Your task to perform on an android device: When is my next meeting? Image 0: 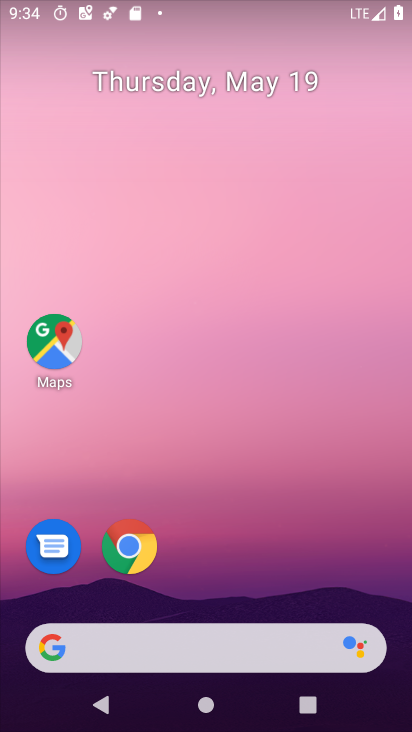
Step 0: drag from (281, 640) to (220, 0)
Your task to perform on an android device: When is my next meeting? Image 1: 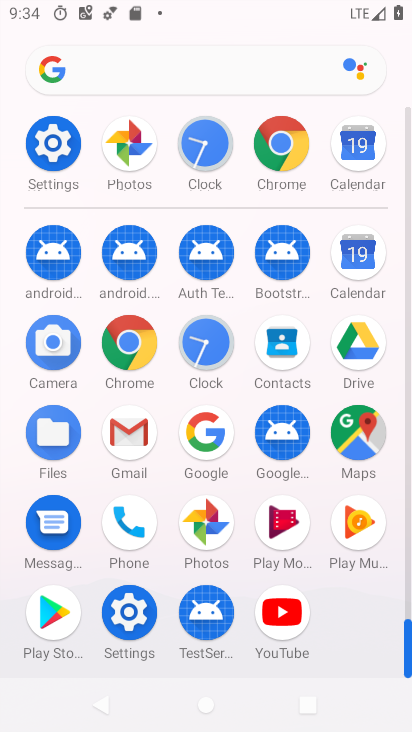
Step 1: drag from (261, 693) to (267, 75)
Your task to perform on an android device: When is my next meeting? Image 2: 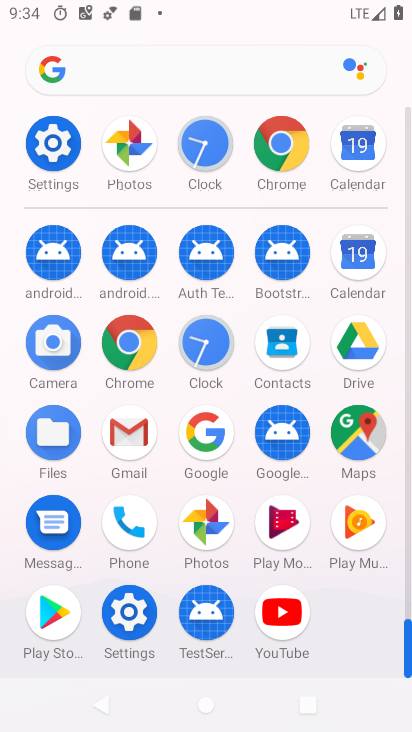
Step 2: click (343, 264)
Your task to perform on an android device: When is my next meeting? Image 3: 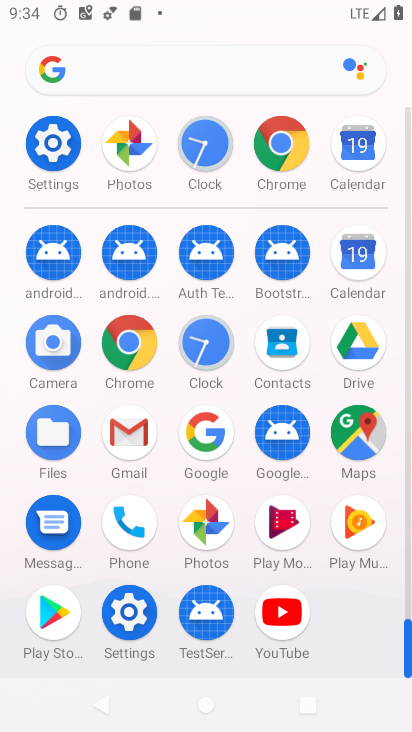
Step 3: click (343, 264)
Your task to perform on an android device: When is my next meeting? Image 4: 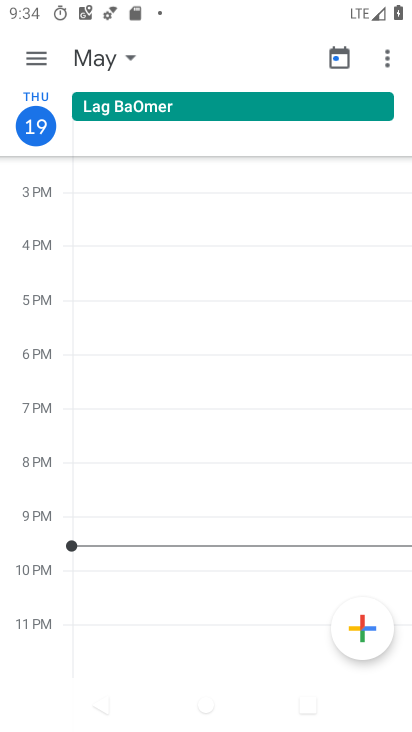
Step 4: click (37, 57)
Your task to perform on an android device: When is my next meeting? Image 5: 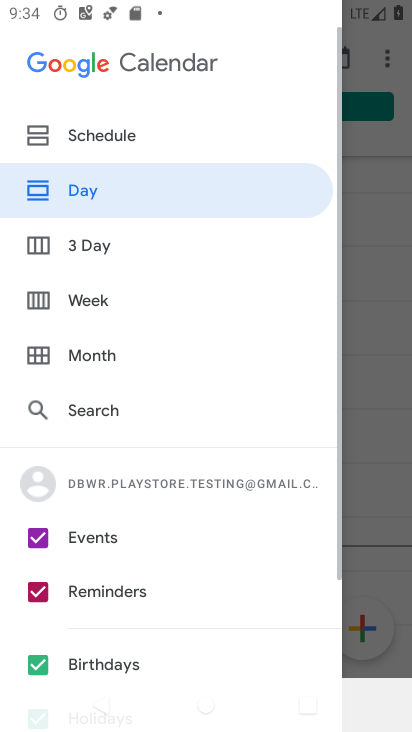
Step 5: click (93, 140)
Your task to perform on an android device: When is my next meeting? Image 6: 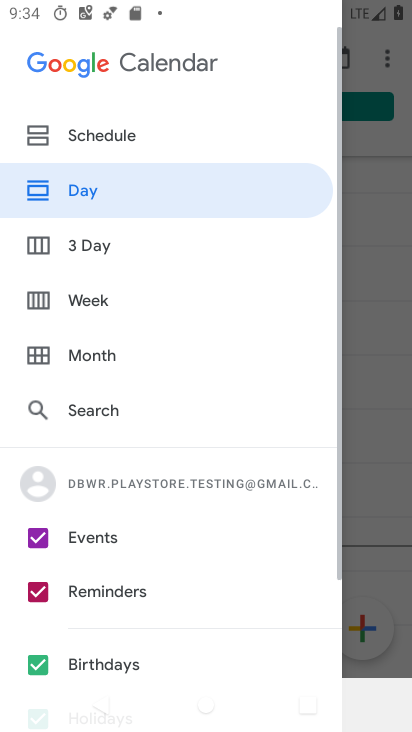
Step 6: click (93, 139)
Your task to perform on an android device: When is my next meeting? Image 7: 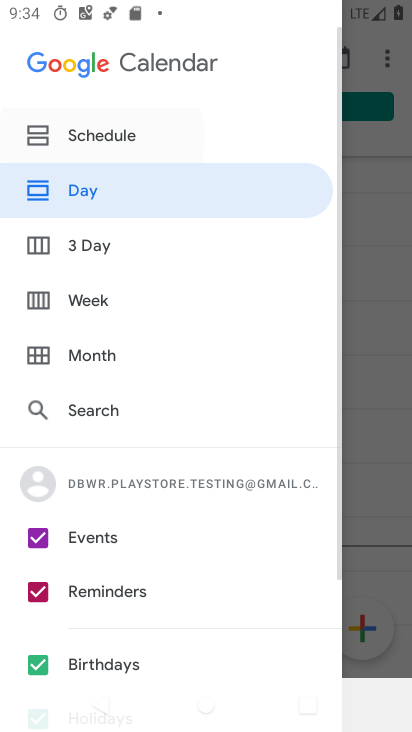
Step 7: click (93, 139)
Your task to perform on an android device: When is my next meeting? Image 8: 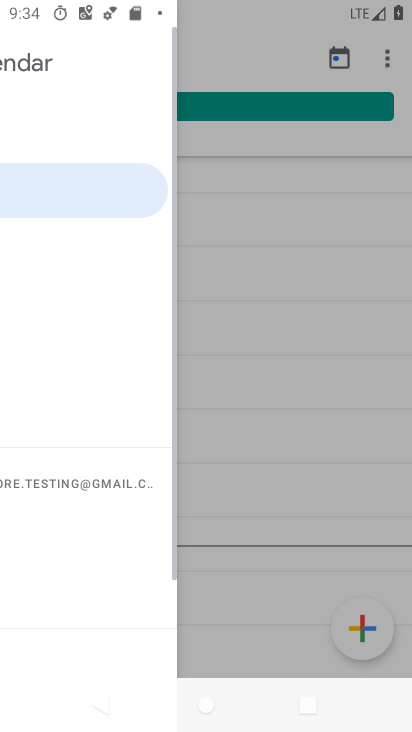
Step 8: click (105, 135)
Your task to perform on an android device: When is my next meeting? Image 9: 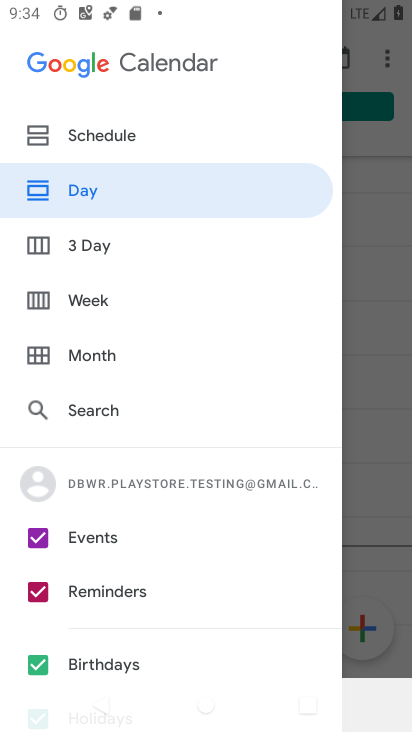
Step 9: click (37, 136)
Your task to perform on an android device: When is my next meeting? Image 10: 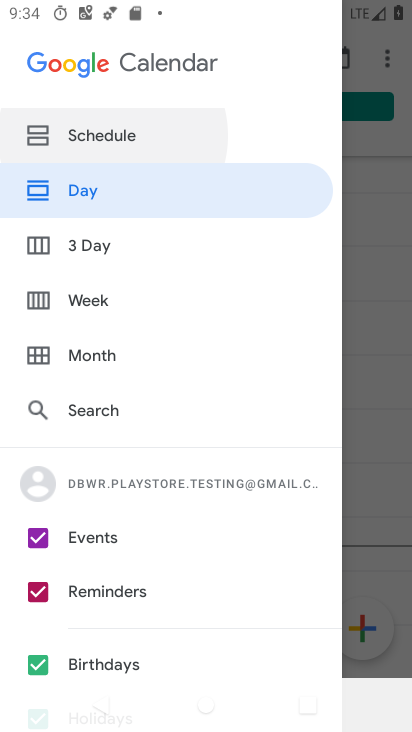
Step 10: click (39, 132)
Your task to perform on an android device: When is my next meeting? Image 11: 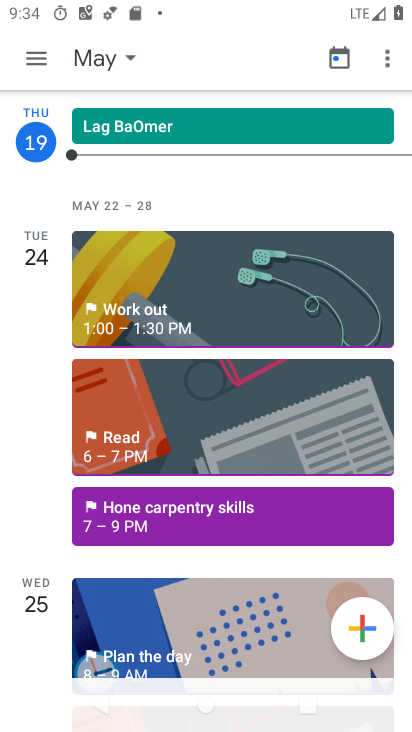
Step 11: drag from (217, 422) to (122, 58)
Your task to perform on an android device: When is my next meeting? Image 12: 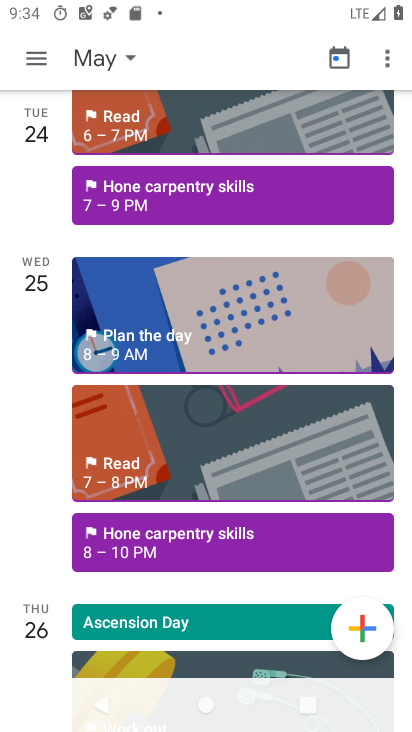
Step 12: drag from (215, 426) to (147, 22)
Your task to perform on an android device: When is my next meeting? Image 13: 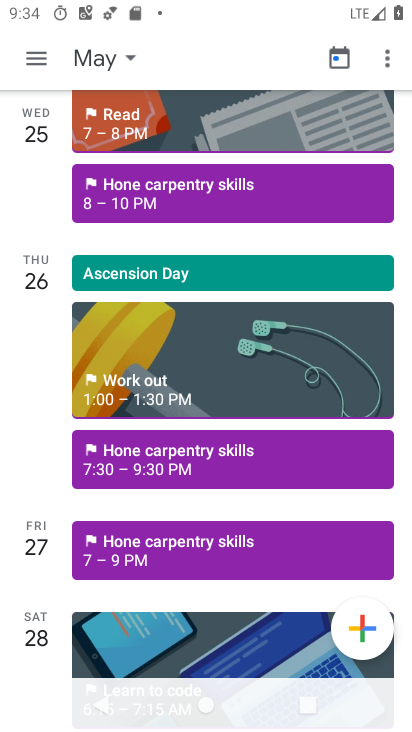
Step 13: drag from (185, 494) to (107, 125)
Your task to perform on an android device: When is my next meeting? Image 14: 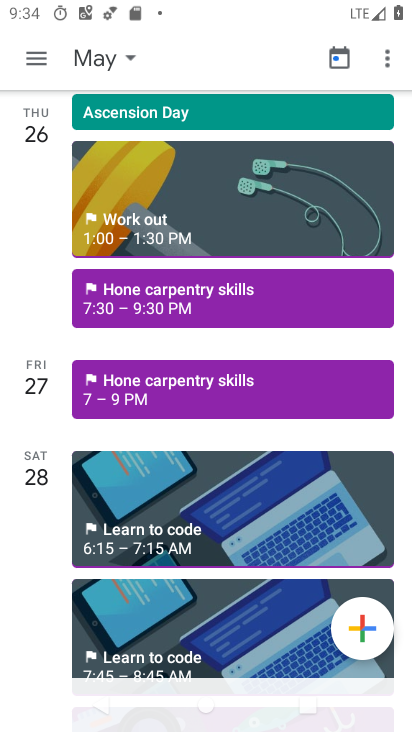
Step 14: click (120, 383)
Your task to perform on an android device: When is my next meeting? Image 15: 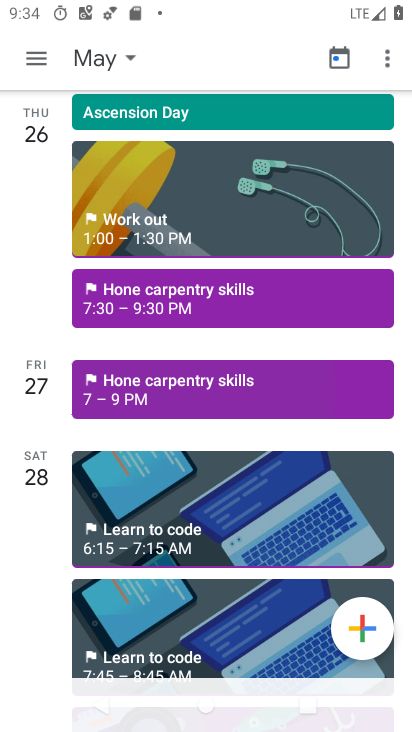
Step 15: click (125, 382)
Your task to perform on an android device: When is my next meeting? Image 16: 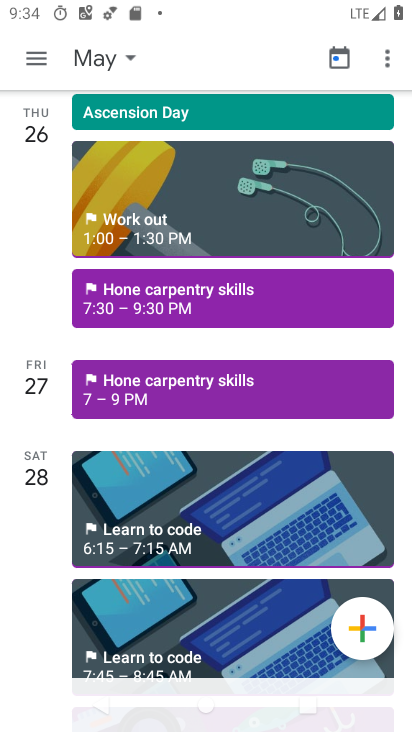
Step 16: click (134, 382)
Your task to perform on an android device: When is my next meeting? Image 17: 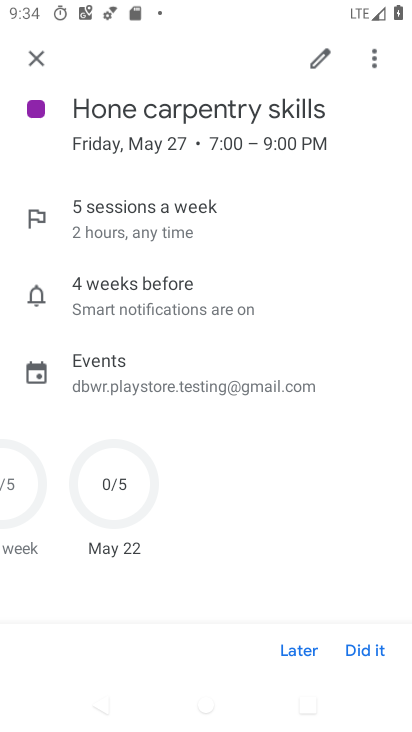
Step 17: task complete